Your task to perform on an android device: toggle javascript in the chrome app Image 0: 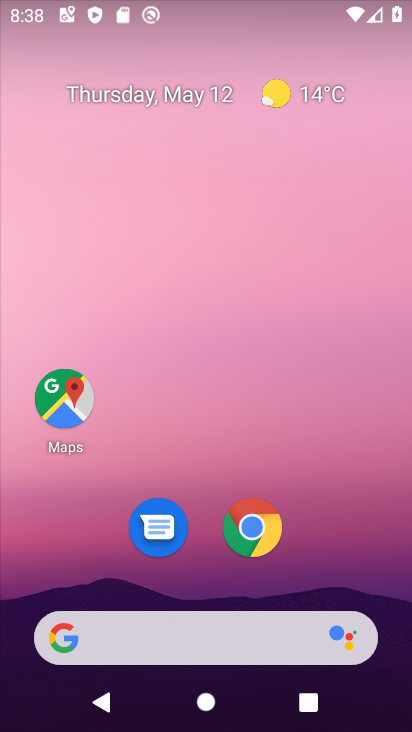
Step 0: drag from (321, 565) to (341, 192)
Your task to perform on an android device: toggle javascript in the chrome app Image 1: 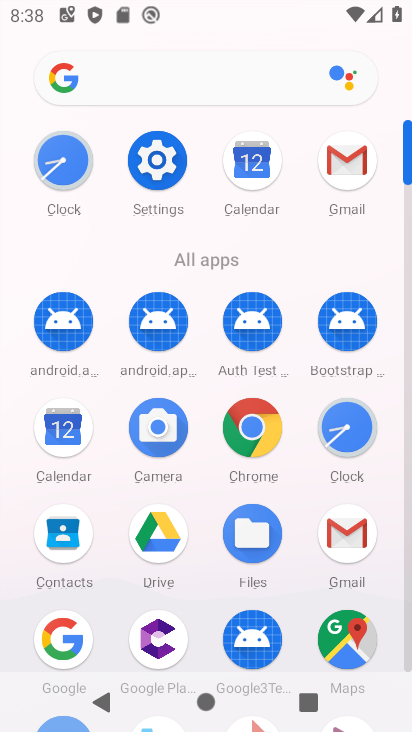
Step 1: click (257, 460)
Your task to perform on an android device: toggle javascript in the chrome app Image 2: 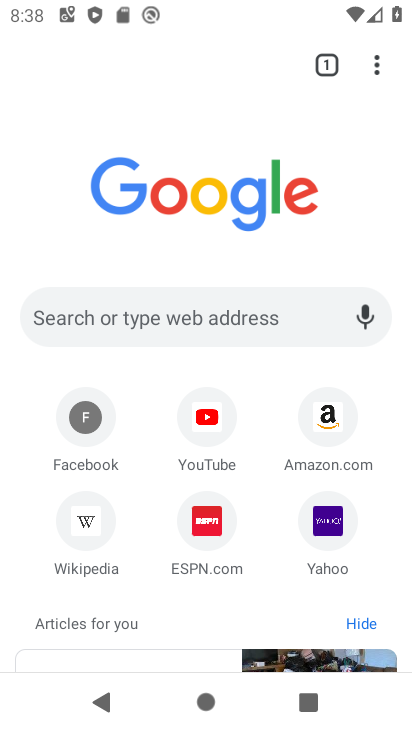
Step 2: click (382, 72)
Your task to perform on an android device: toggle javascript in the chrome app Image 3: 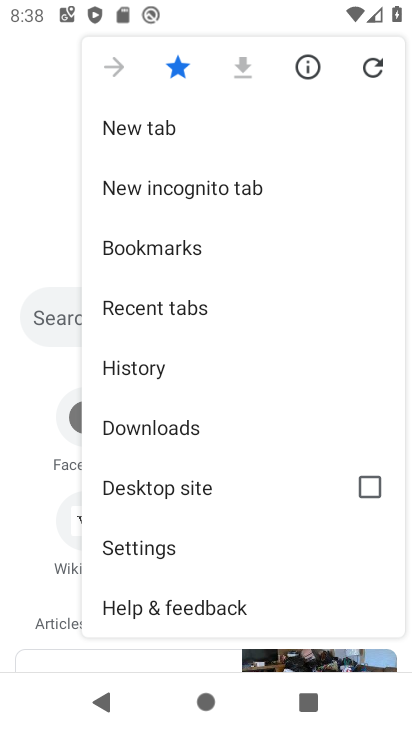
Step 3: click (184, 551)
Your task to perform on an android device: toggle javascript in the chrome app Image 4: 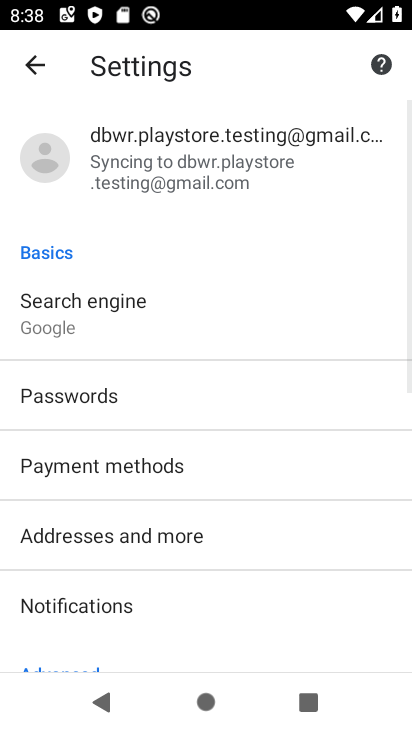
Step 4: drag from (189, 515) to (218, 251)
Your task to perform on an android device: toggle javascript in the chrome app Image 5: 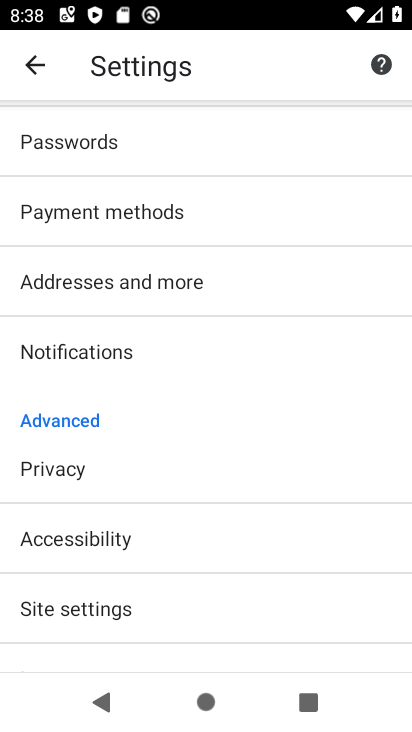
Step 5: drag from (197, 553) to (224, 370)
Your task to perform on an android device: toggle javascript in the chrome app Image 6: 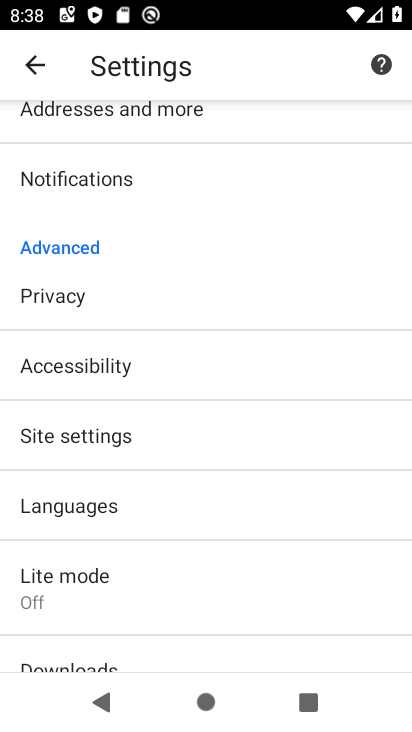
Step 6: click (268, 435)
Your task to perform on an android device: toggle javascript in the chrome app Image 7: 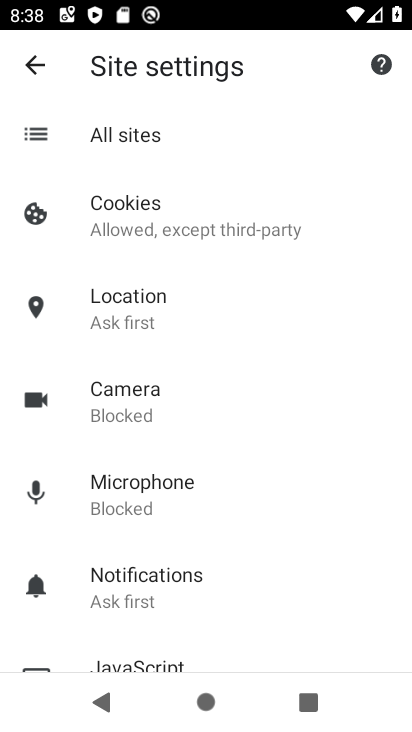
Step 7: click (201, 648)
Your task to perform on an android device: toggle javascript in the chrome app Image 8: 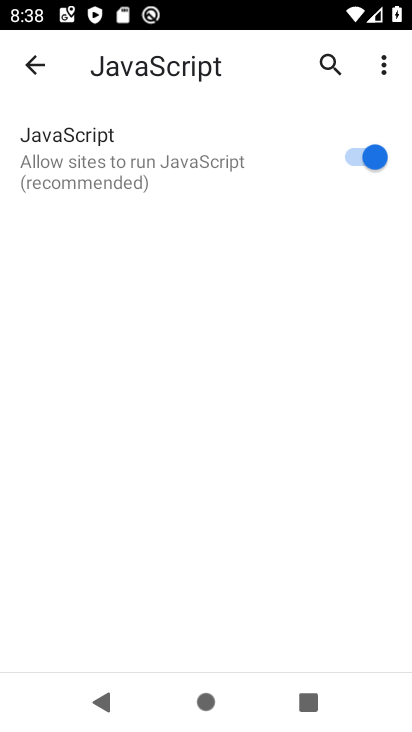
Step 8: click (351, 167)
Your task to perform on an android device: toggle javascript in the chrome app Image 9: 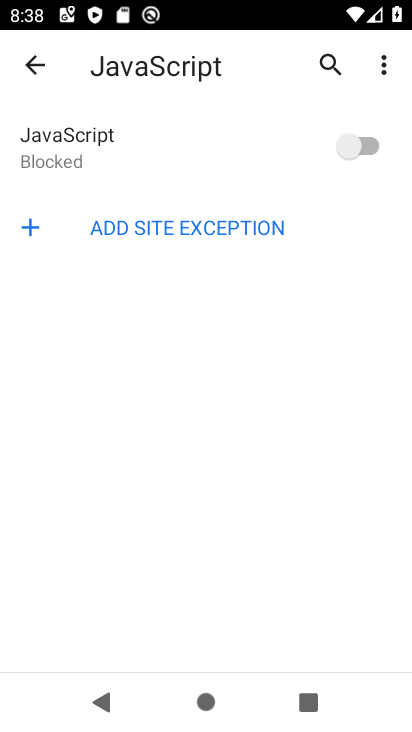
Step 9: task complete